Your task to perform on an android device: Find coffee shops on Maps Image 0: 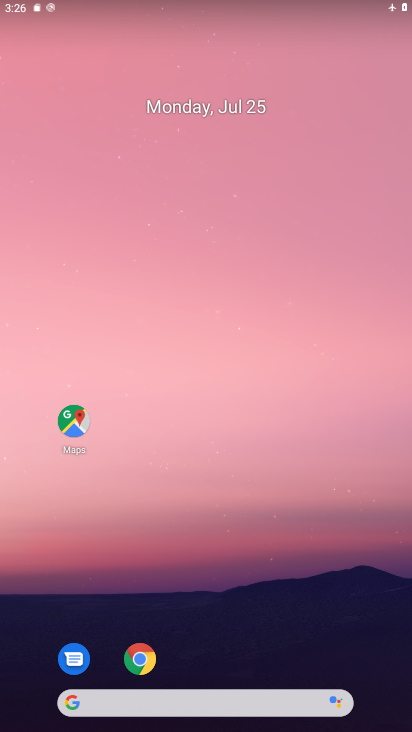
Step 0: click (77, 418)
Your task to perform on an android device: Find coffee shops on Maps Image 1: 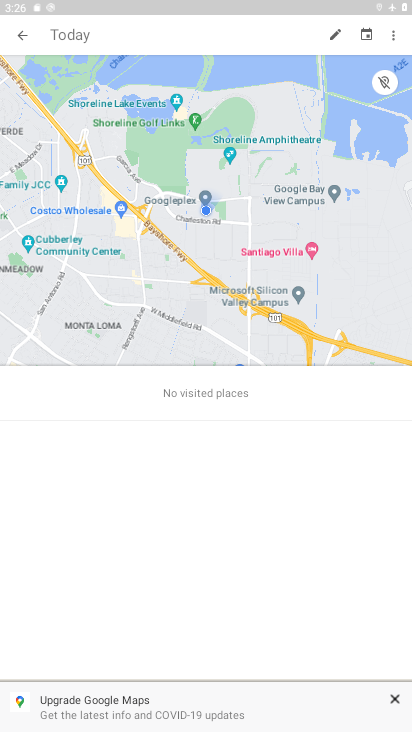
Step 1: click (16, 29)
Your task to perform on an android device: Find coffee shops on Maps Image 2: 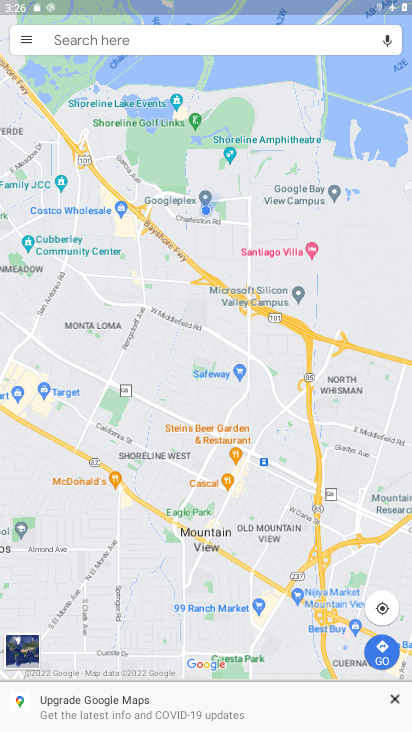
Step 2: click (117, 35)
Your task to perform on an android device: Find coffee shops on Maps Image 3: 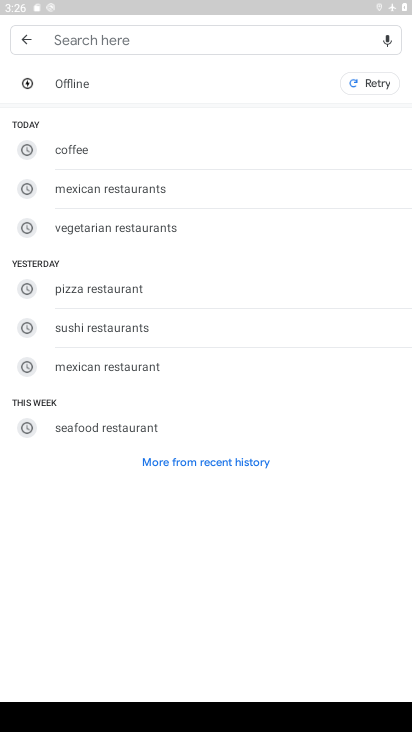
Step 3: type "coffee shops"
Your task to perform on an android device: Find coffee shops on Maps Image 4: 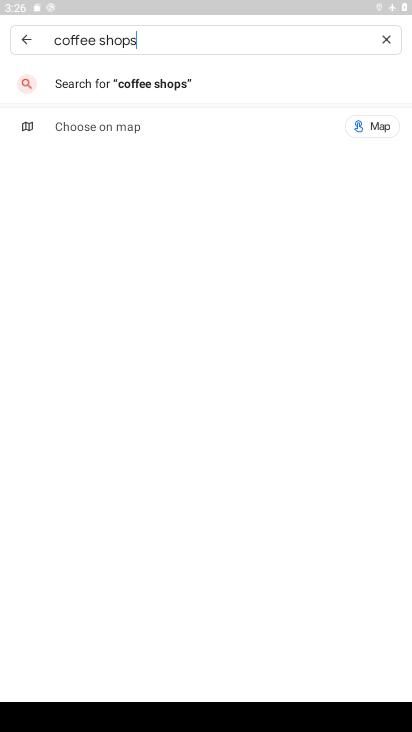
Step 4: task complete